Your task to perform on an android device: all mails in gmail Image 0: 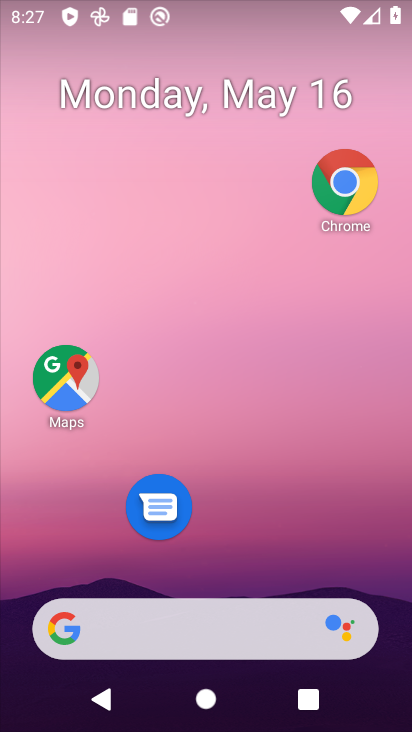
Step 0: drag from (238, 529) to (278, 0)
Your task to perform on an android device: all mails in gmail Image 1: 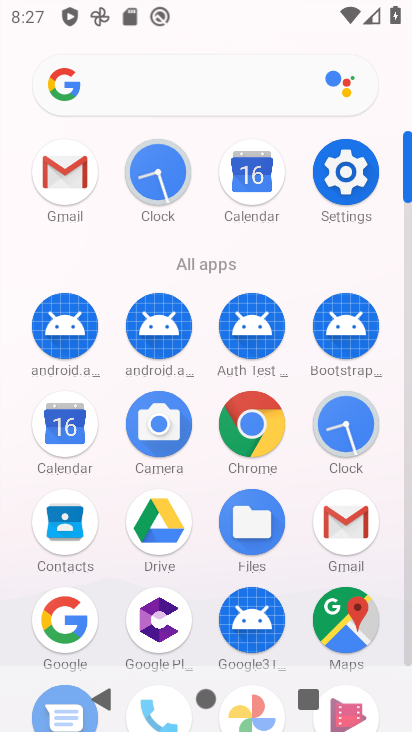
Step 1: click (63, 180)
Your task to perform on an android device: all mails in gmail Image 2: 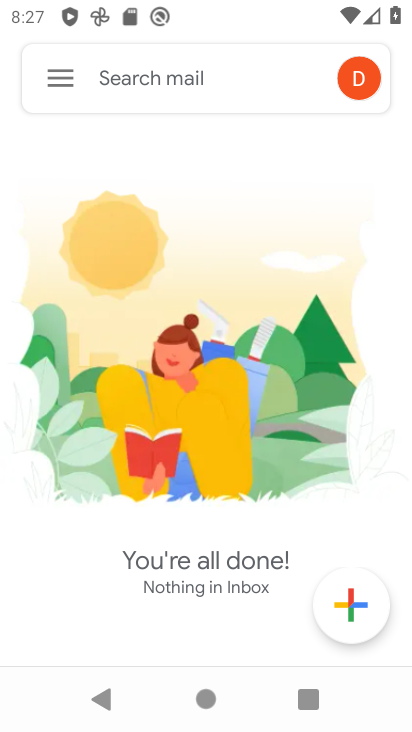
Step 2: click (53, 77)
Your task to perform on an android device: all mails in gmail Image 3: 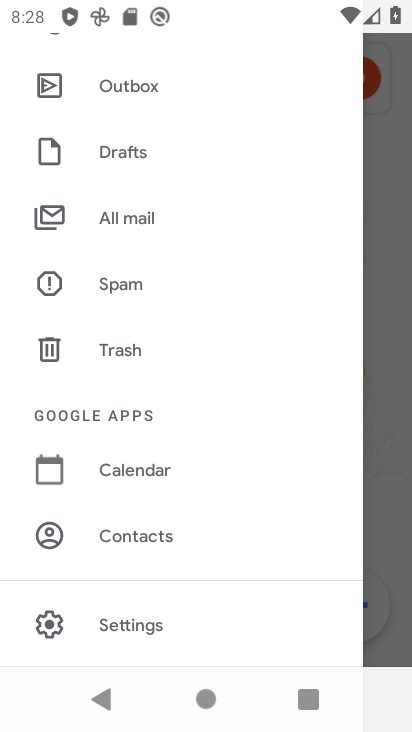
Step 3: click (57, 81)
Your task to perform on an android device: all mails in gmail Image 4: 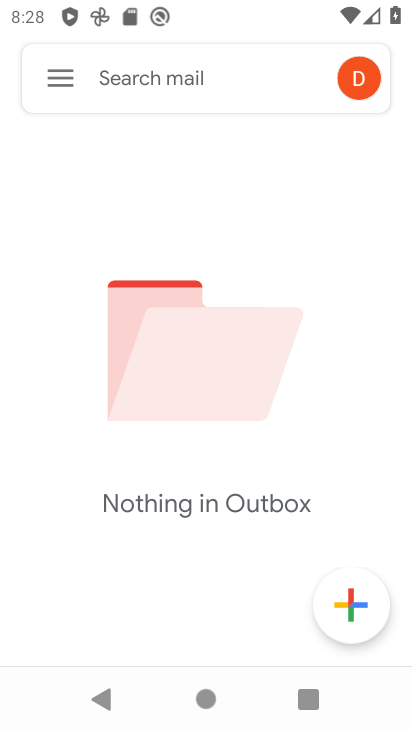
Step 4: click (111, 214)
Your task to perform on an android device: all mails in gmail Image 5: 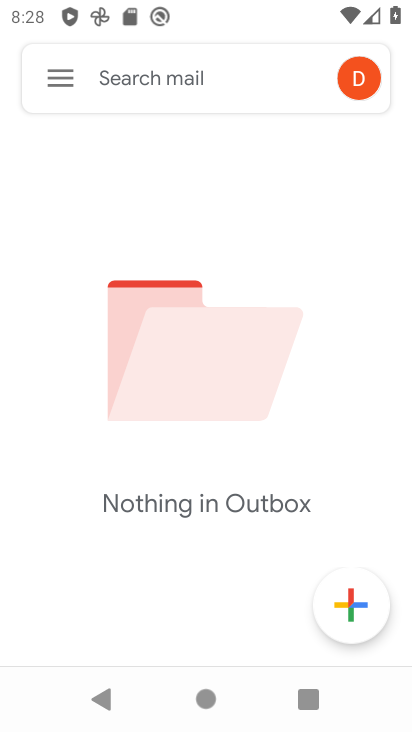
Step 5: task complete